Your task to perform on an android device: Do I have any events today? Image 0: 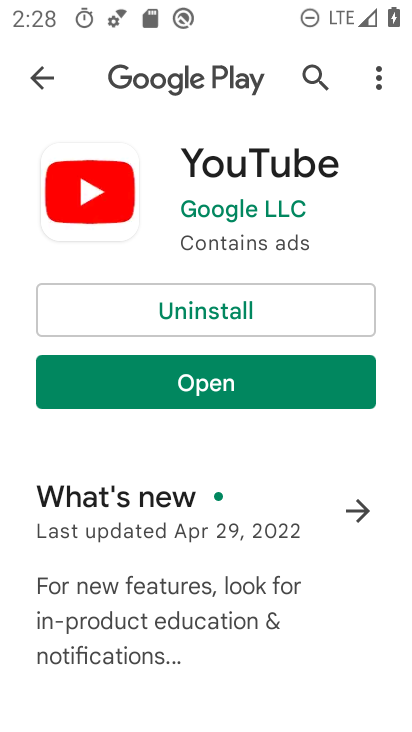
Step 0: press home button
Your task to perform on an android device: Do I have any events today? Image 1: 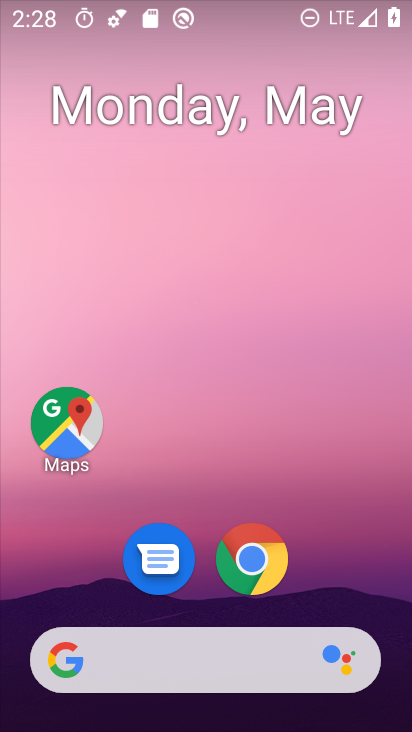
Step 1: drag from (346, 617) to (391, 65)
Your task to perform on an android device: Do I have any events today? Image 2: 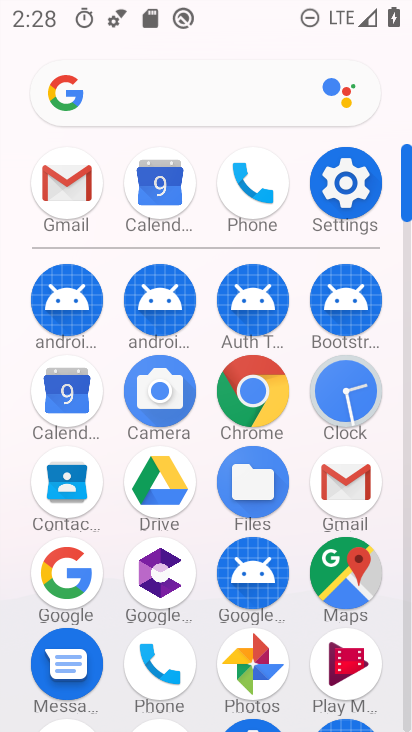
Step 2: click (144, 202)
Your task to perform on an android device: Do I have any events today? Image 3: 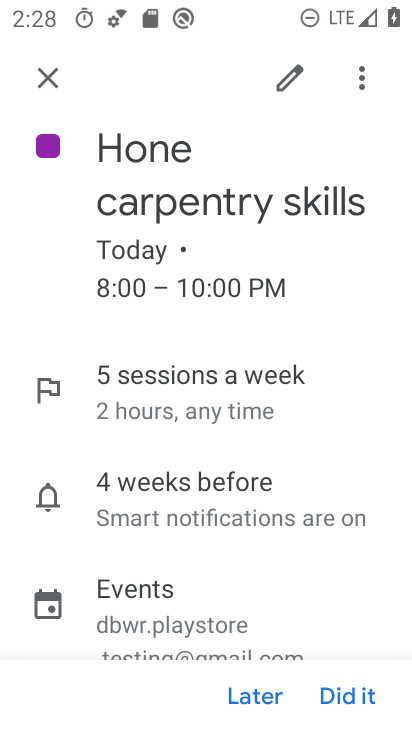
Step 3: click (46, 81)
Your task to perform on an android device: Do I have any events today? Image 4: 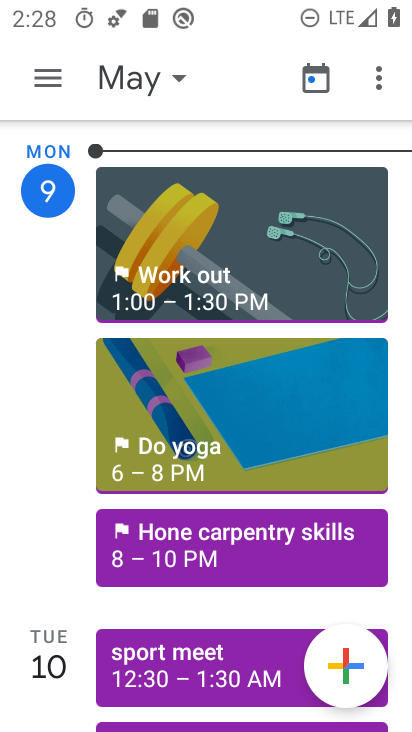
Step 4: click (181, 547)
Your task to perform on an android device: Do I have any events today? Image 5: 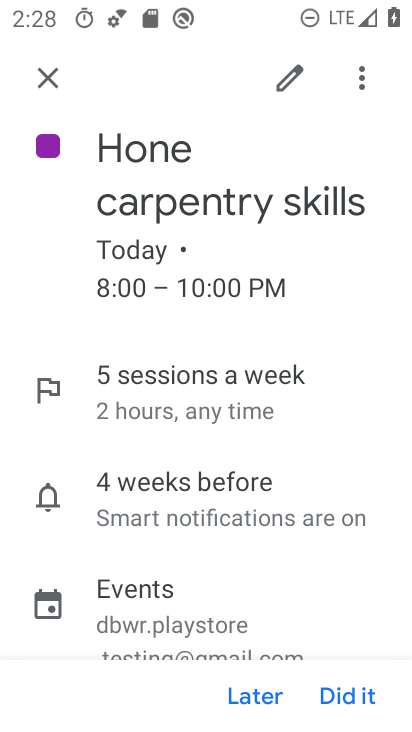
Step 5: task complete